Your task to perform on an android device: open chrome and create a bookmark for the current page Image 0: 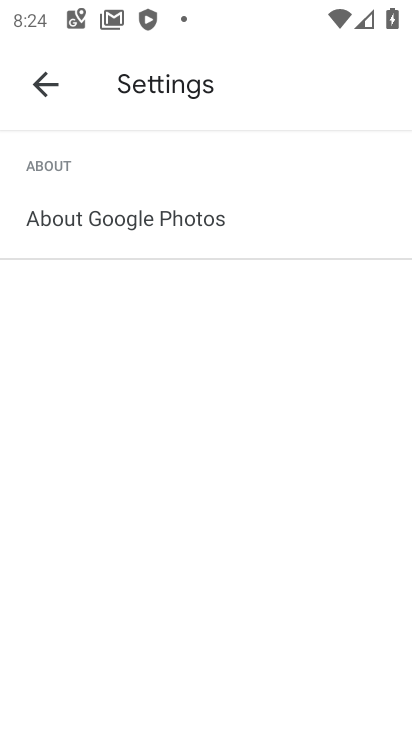
Step 0: press home button
Your task to perform on an android device: open chrome and create a bookmark for the current page Image 1: 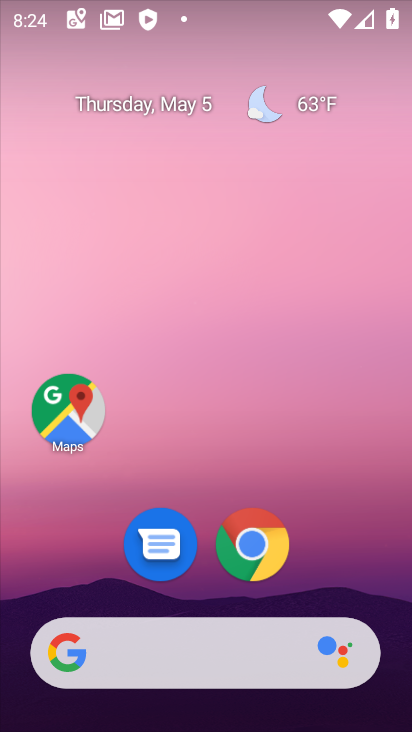
Step 1: drag from (390, 627) to (261, 128)
Your task to perform on an android device: open chrome and create a bookmark for the current page Image 2: 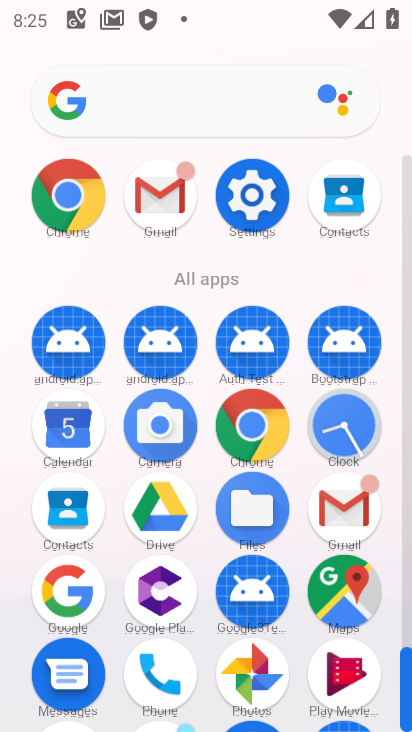
Step 2: click (63, 223)
Your task to perform on an android device: open chrome and create a bookmark for the current page Image 3: 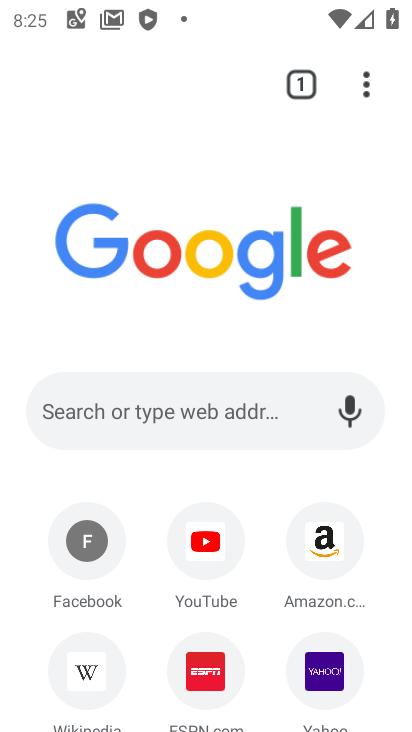
Step 3: click (365, 81)
Your task to perform on an android device: open chrome and create a bookmark for the current page Image 4: 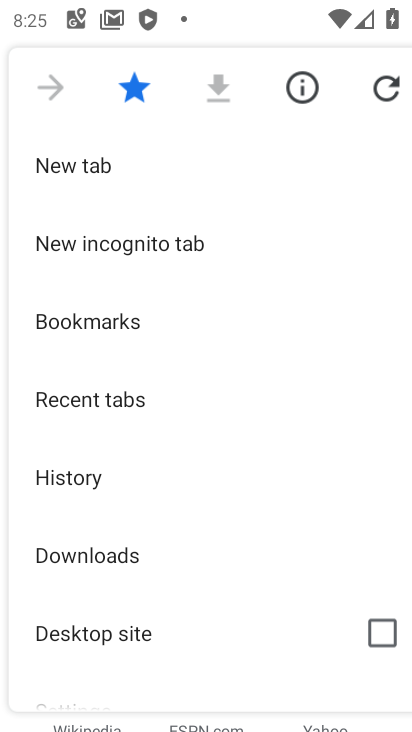
Step 4: click (140, 87)
Your task to perform on an android device: open chrome and create a bookmark for the current page Image 5: 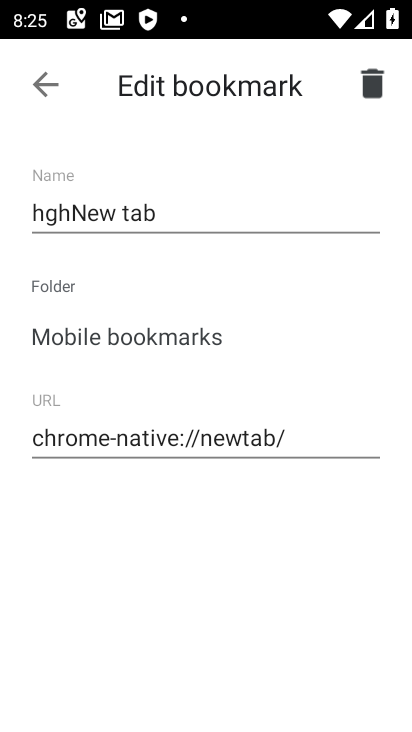
Step 5: click (42, 84)
Your task to perform on an android device: open chrome and create a bookmark for the current page Image 6: 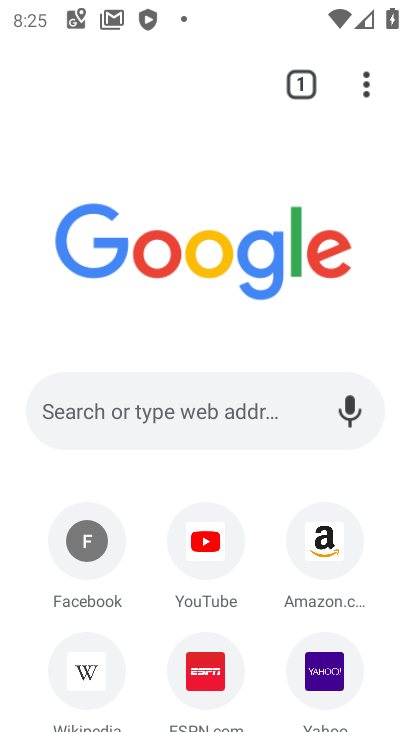
Step 6: task complete